Your task to perform on an android device: star an email in the gmail app Image 0: 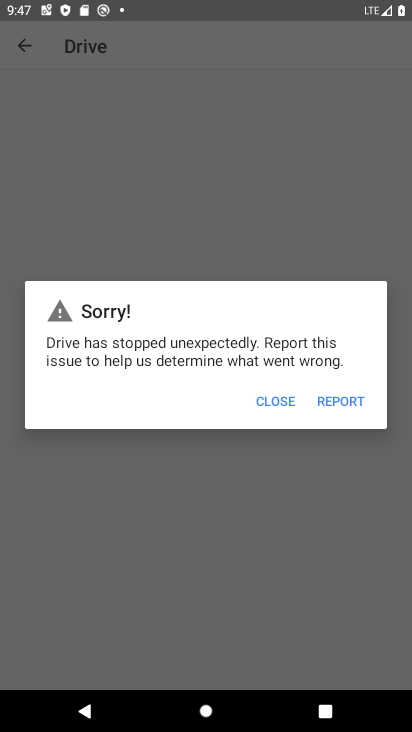
Step 0: press home button
Your task to perform on an android device: star an email in the gmail app Image 1: 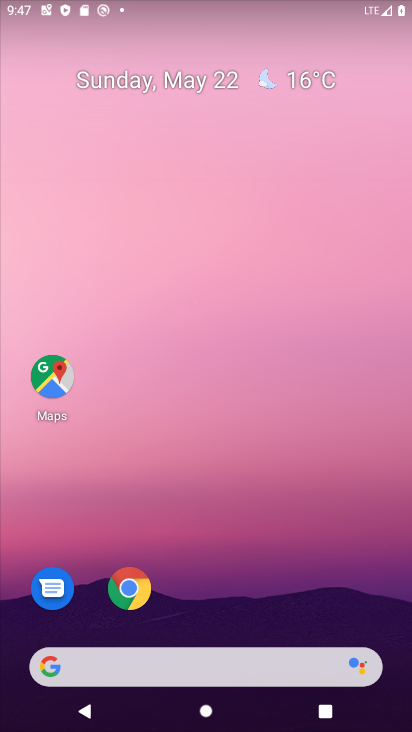
Step 1: drag from (199, 613) to (218, 166)
Your task to perform on an android device: star an email in the gmail app Image 2: 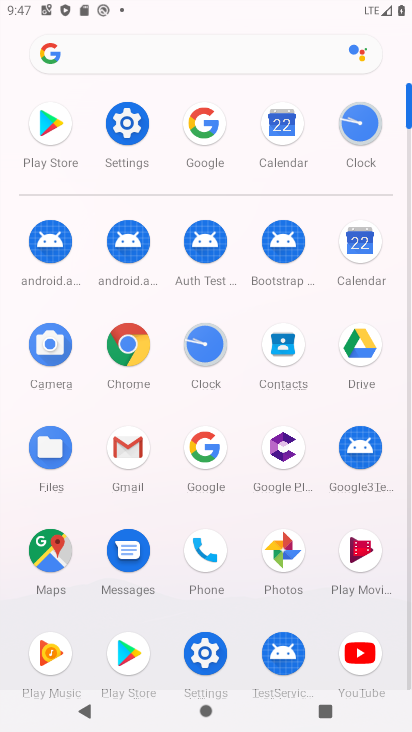
Step 2: click (127, 443)
Your task to perform on an android device: star an email in the gmail app Image 3: 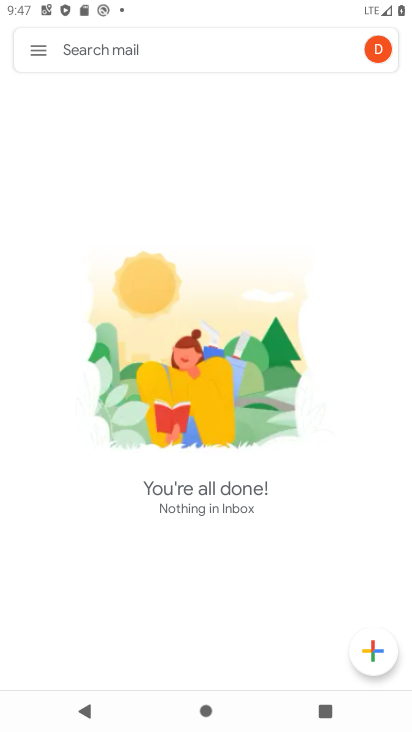
Step 3: click (33, 53)
Your task to perform on an android device: star an email in the gmail app Image 4: 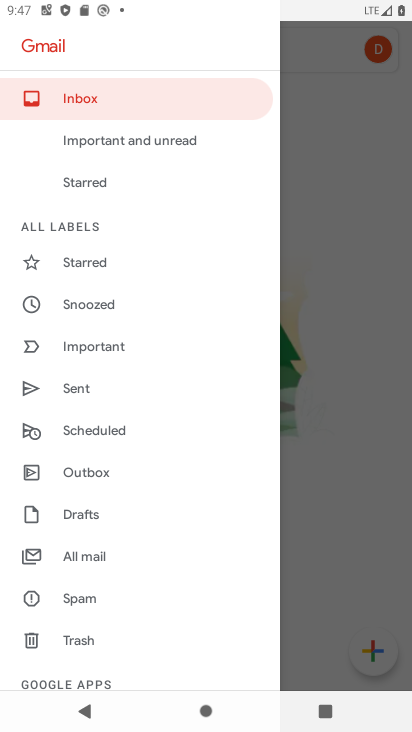
Step 4: click (101, 558)
Your task to perform on an android device: star an email in the gmail app Image 5: 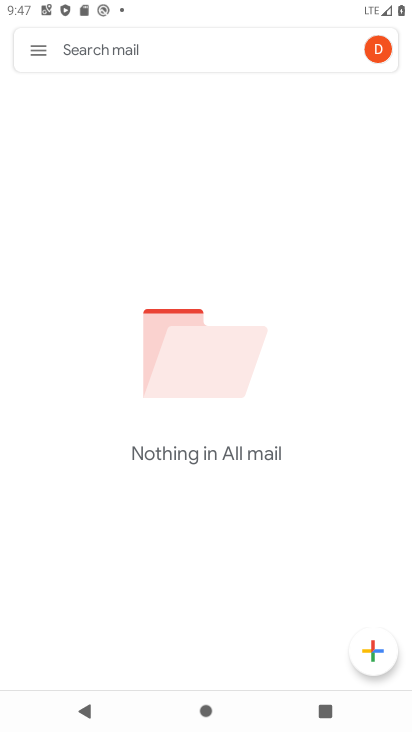
Step 5: click (40, 55)
Your task to perform on an android device: star an email in the gmail app Image 6: 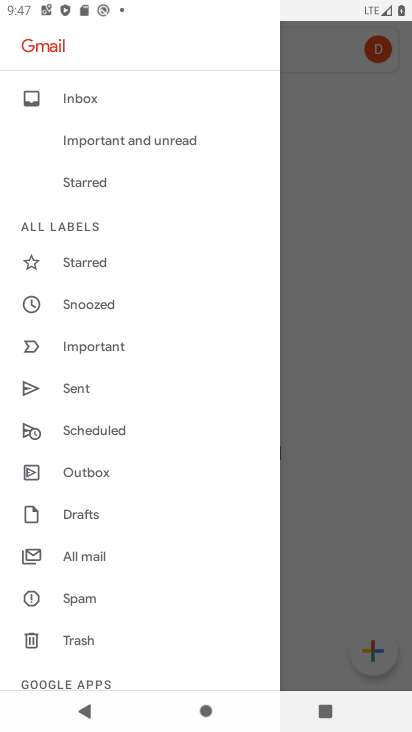
Step 6: click (94, 563)
Your task to perform on an android device: star an email in the gmail app Image 7: 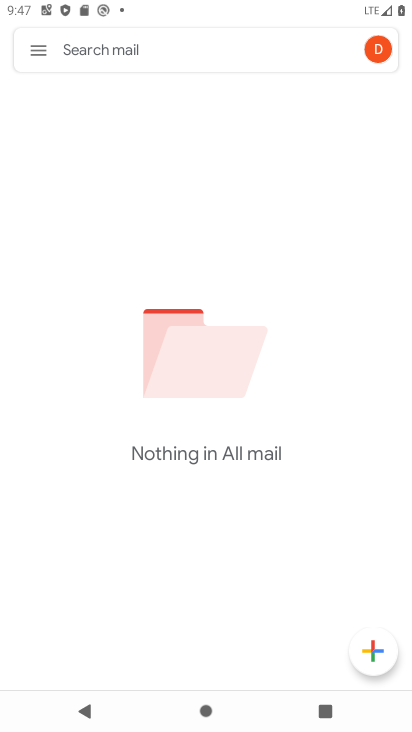
Step 7: task complete